Your task to perform on an android device: Go to Reddit.com Image 0: 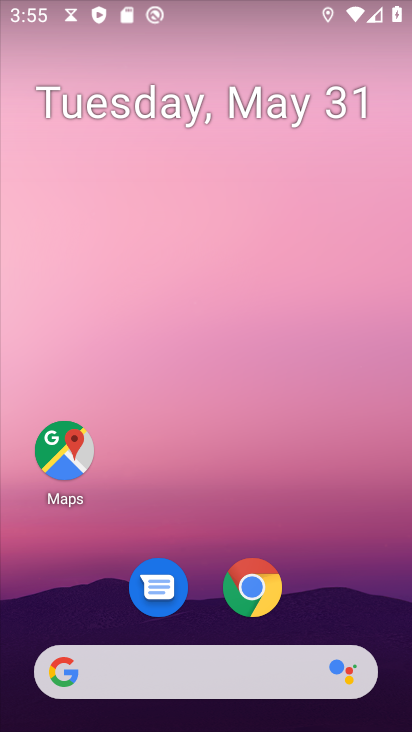
Step 0: click (134, 662)
Your task to perform on an android device: Go to Reddit.com Image 1: 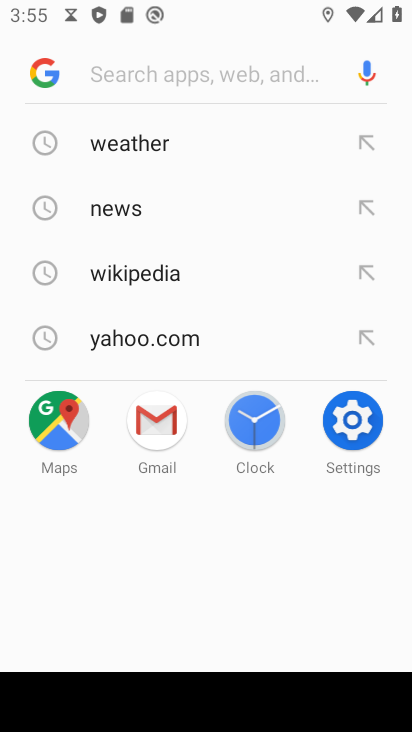
Step 1: type "Reddit.com "
Your task to perform on an android device: Go to Reddit.com Image 2: 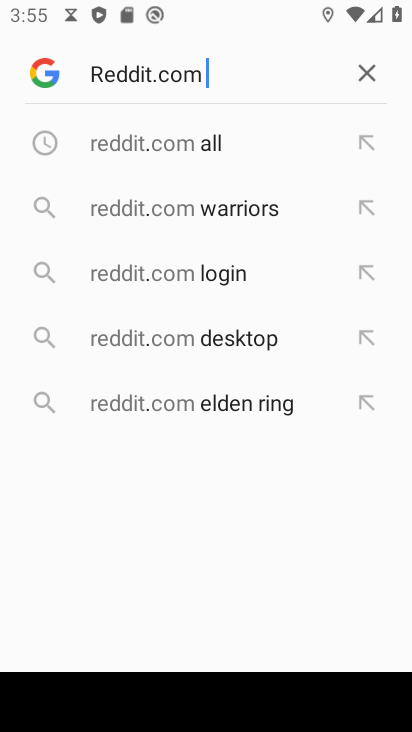
Step 2: click (194, 155)
Your task to perform on an android device: Go to Reddit.com Image 3: 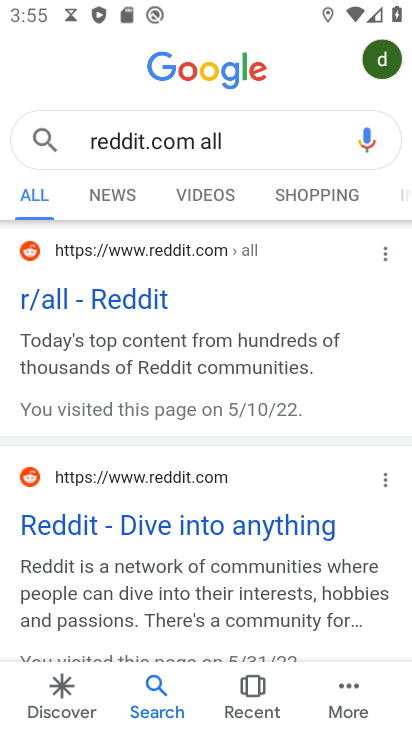
Step 3: click (164, 311)
Your task to perform on an android device: Go to Reddit.com Image 4: 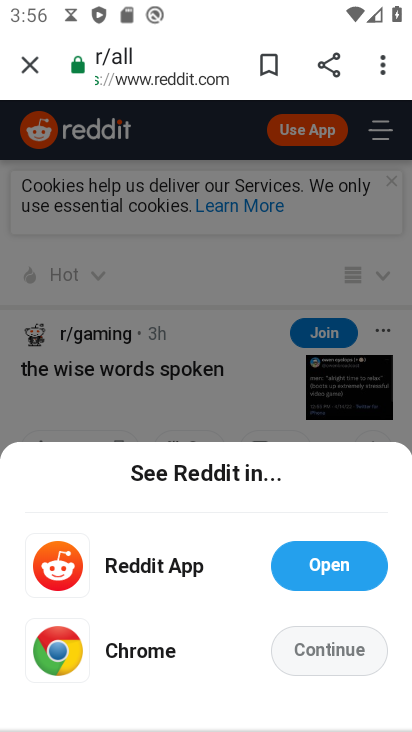
Step 4: click (348, 663)
Your task to perform on an android device: Go to Reddit.com Image 5: 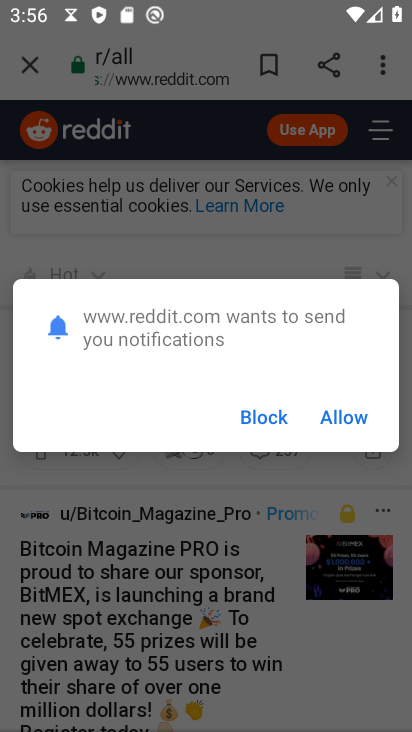
Step 5: click (354, 406)
Your task to perform on an android device: Go to Reddit.com Image 6: 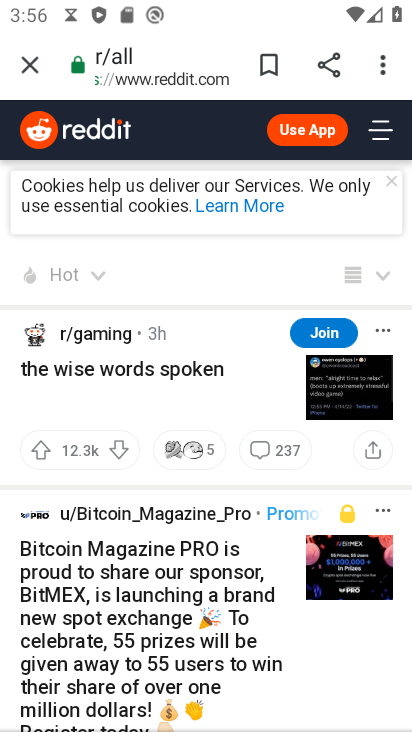
Step 6: task complete